Your task to perform on an android device: Show me recent news Image 0: 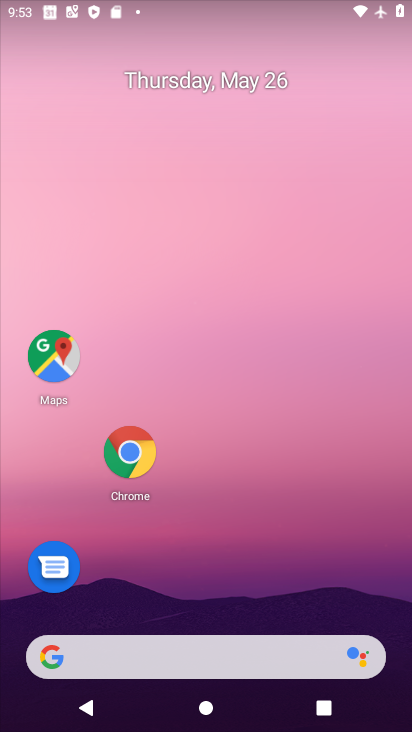
Step 0: press home button
Your task to perform on an android device: Show me recent news Image 1: 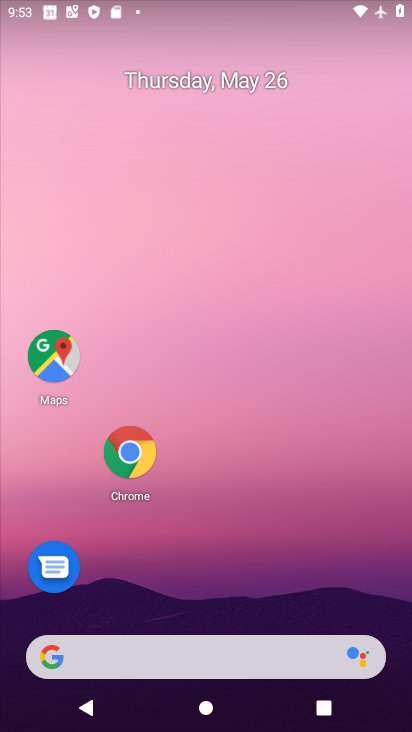
Step 1: click (58, 664)
Your task to perform on an android device: Show me recent news Image 2: 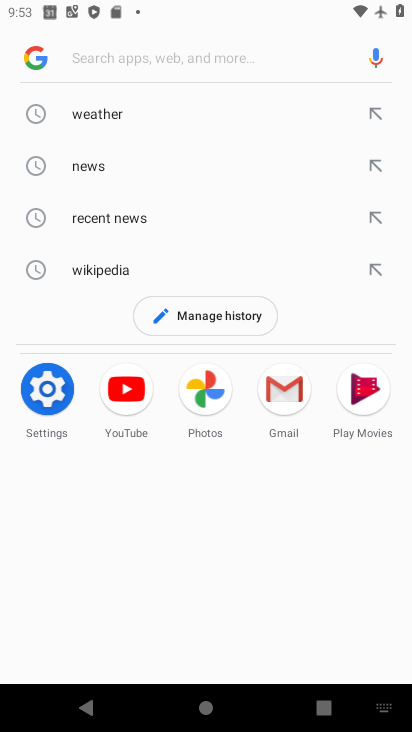
Step 2: click (122, 215)
Your task to perform on an android device: Show me recent news Image 3: 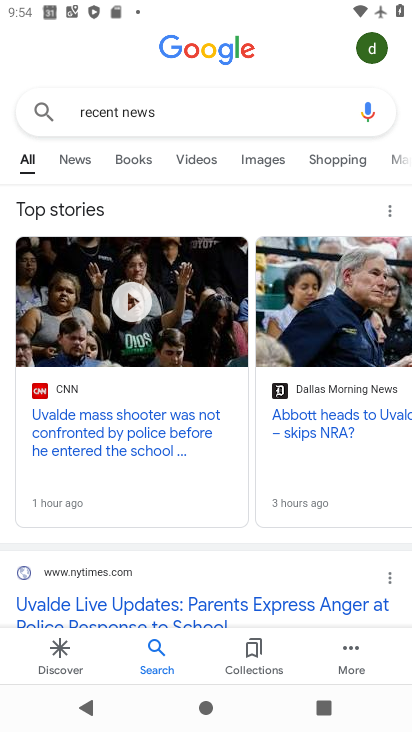
Step 3: click (80, 157)
Your task to perform on an android device: Show me recent news Image 4: 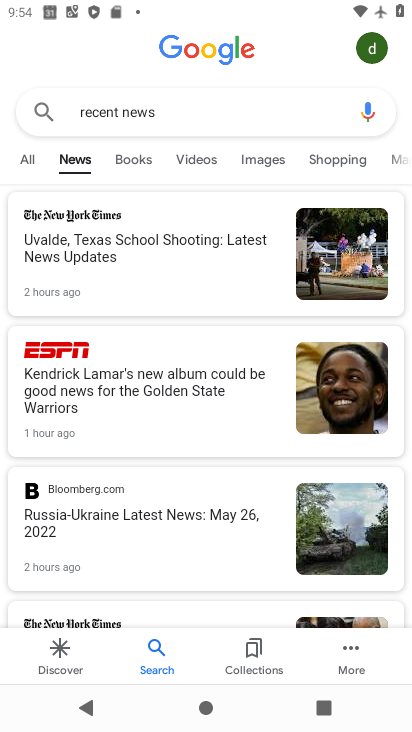
Step 4: task complete